Your task to perform on an android device: turn off wifi Image 0: 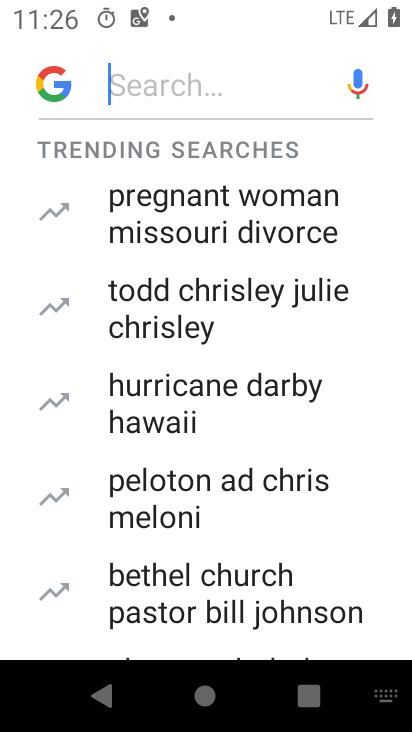
Step 0: press back button
Your task to perform on an android device: turn off wifi Image 1: 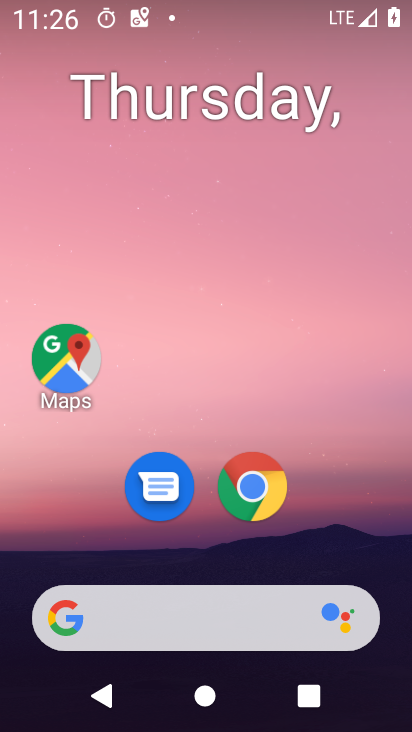
Step 1: task complete